Your task to perform on an android device: Open my contact list Image 0: 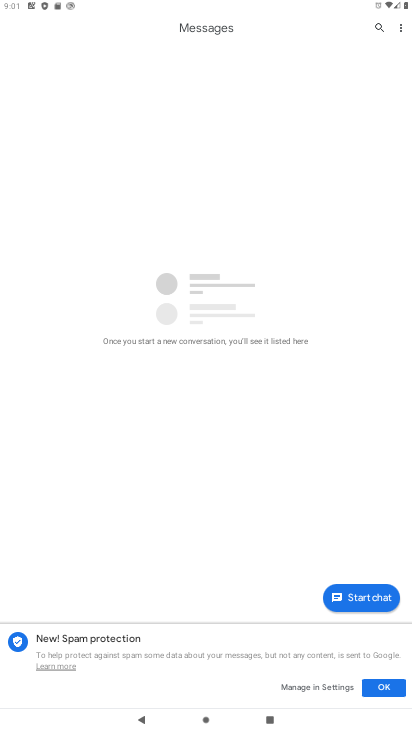
Step 0: press home button
Your task to perform on an android device: Open my contact list Image 1: 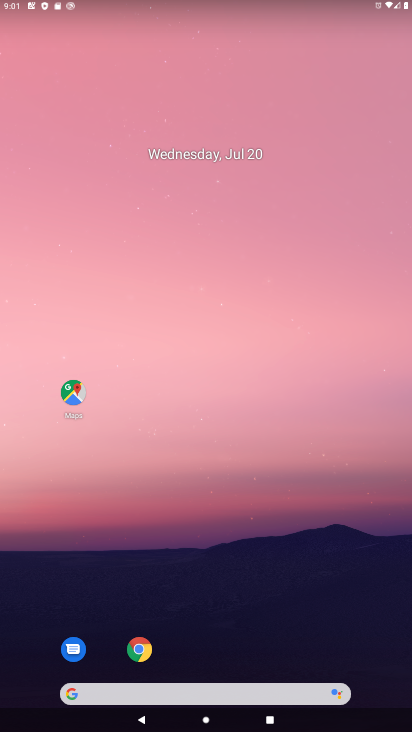
Step 1: drag from (187, 681) to (258, 169)
Your task to perform on an android device: Open my contact list Image 2: 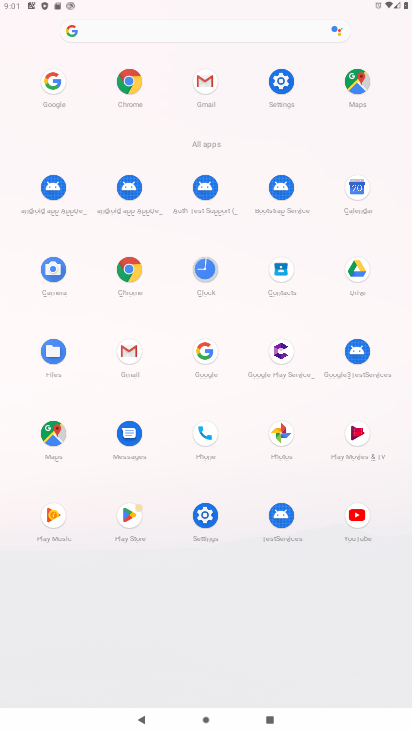
Step 2: click (293, 266)
Your task to perform on an android device: Open my contact list Image 3: 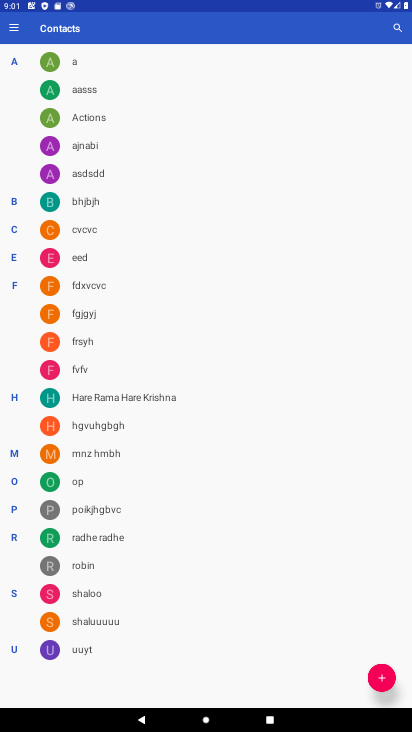
Step 3: task complete